Your task to perform on an android device: What is the recent news? Image 0: 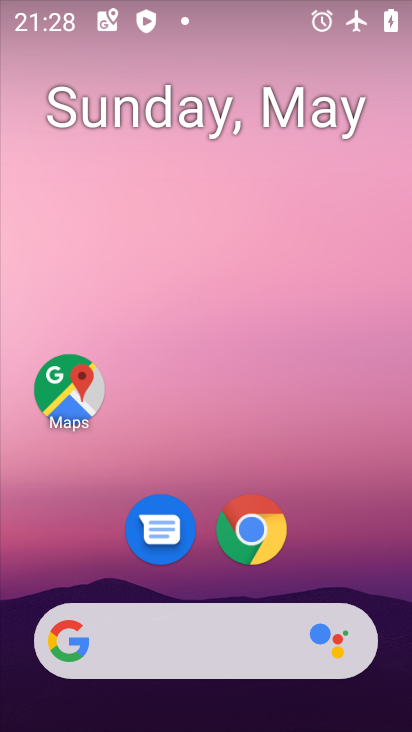
Step 0: click (109, 640)
Your task to perform on an android device: What is the recent news? Image 1: 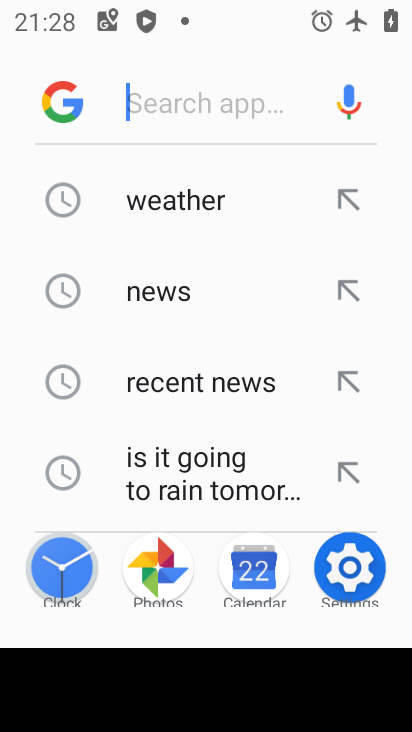
Step 1: click (168, 389)
Your task to perform on an android device: What is the recent news? Image 2: 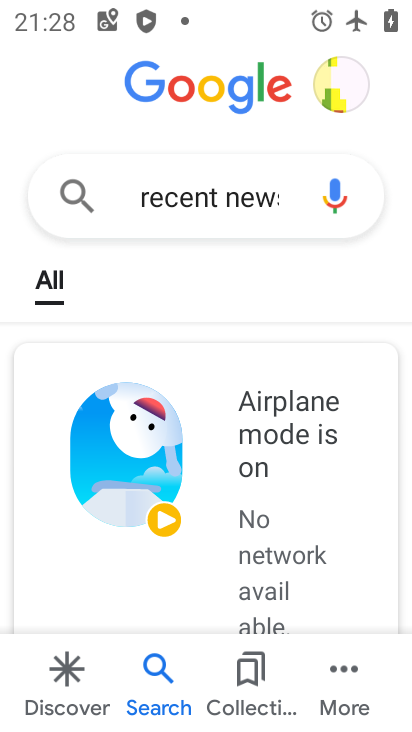
Step 2: task complete